Your task to perform on an android device: Open sound settings Image 0: 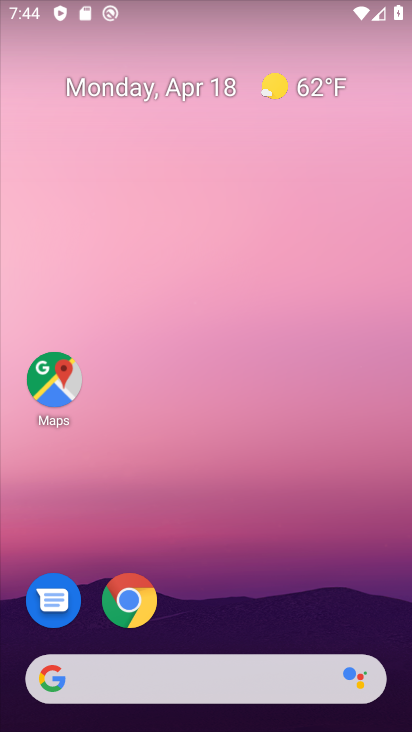
Step 0: drag from (208, 633) to (229, 14)
Your task to perform on an android device: Open sound settings Image 1: 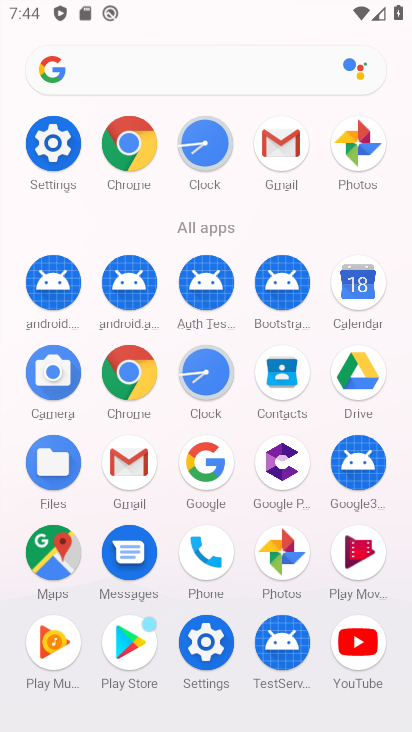
Step 1: click (39, 129)
Your task to perform on an android device: Open sound settings Image 2: 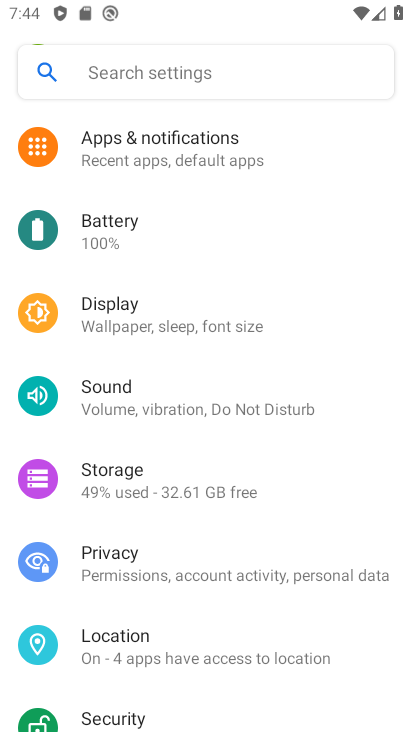
Step 2: click (94, 378)
Your task to perform on an android device: Open sound settings Image 3: 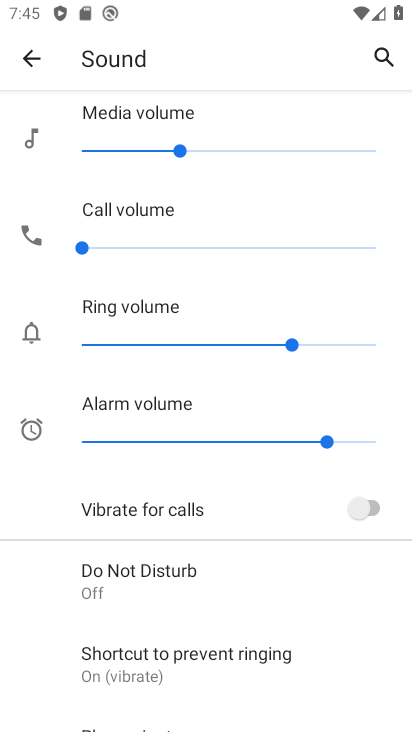
Step 3: drag from (96, 534) to (67, 170)
Your task to perform on an android device: Open sound settings Image 4: 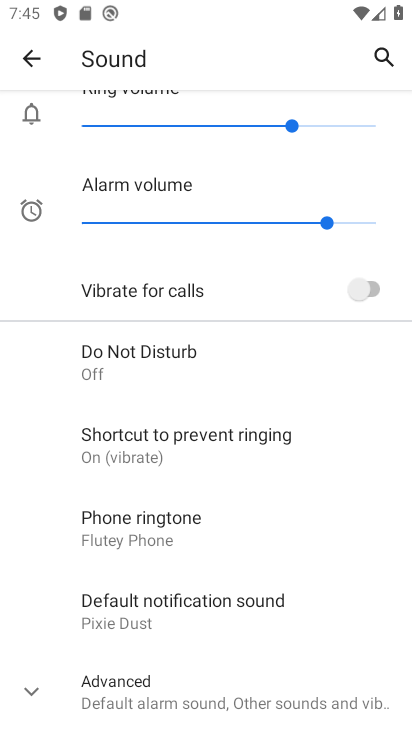
Step 4: drag from (116, 489) to (117, 100)
Your task to perform on an android device: Open sound settings Image 5: 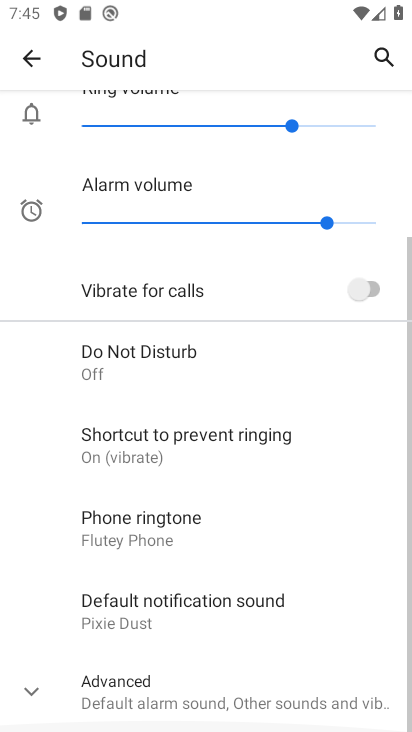
Step 5: click (156, 684)
Your task to perform on an android device: Open sound settings Image 6: 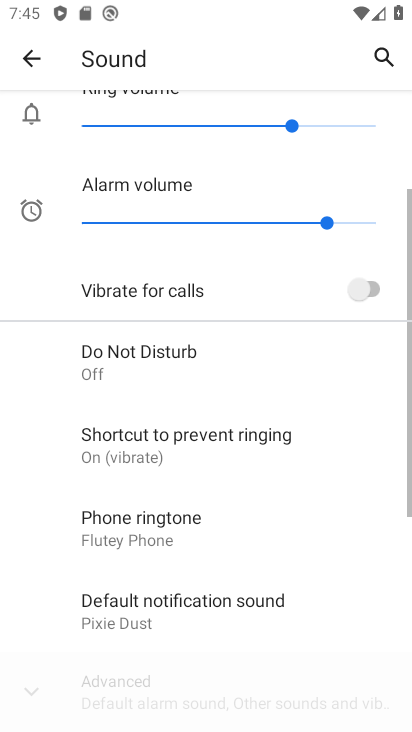
Step 6: task complete